Your task to perform on an android device: Go to calendar. Show me events next week Image 0: 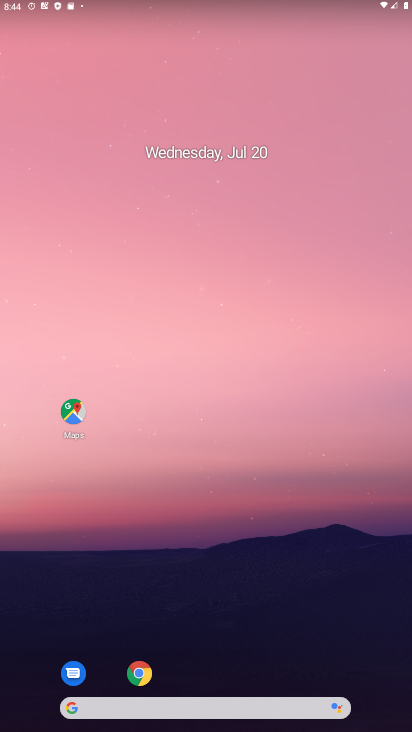
Step 0: drag from (377, 669) to (172, 6)
Your task to perform on an android device: Go to calendar. Show me events next week Image 1: 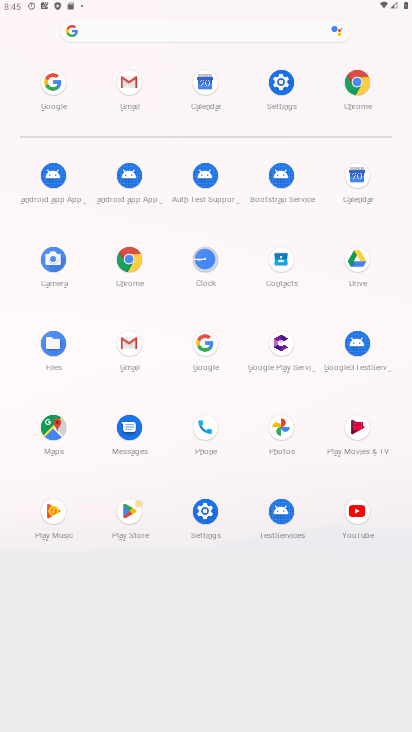
Step 1: click (351, 188)
Your task to perform on an android device: Go to calendar. Show me events next week Image 2: 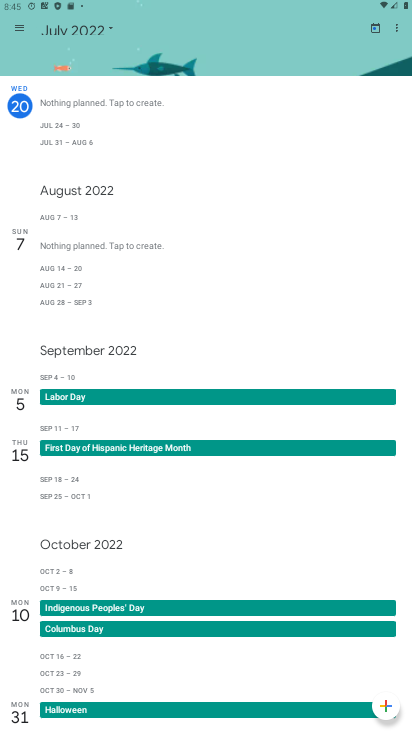
Step 2: task complete